Your task to perform on an android device: change the clock display to analog Image 0: 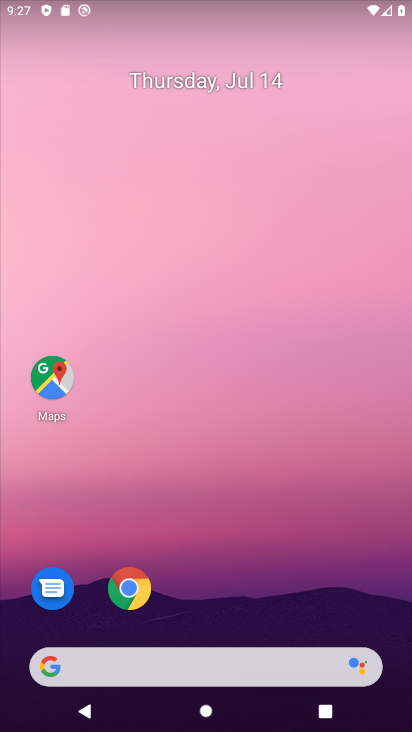
Step 0: drag from (207, 623) to (299, 4)
Your task to perform on an android device: change the clock display to analog Image 1: 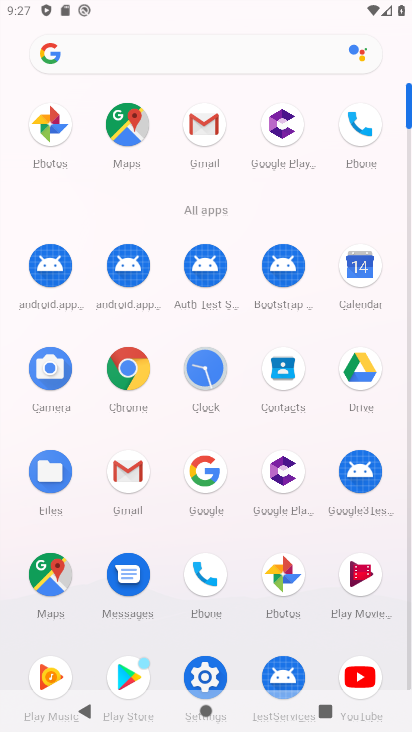
Step 1: click (204, 387)
Your task to perform on an android device: change the clock display to analog Image 2: 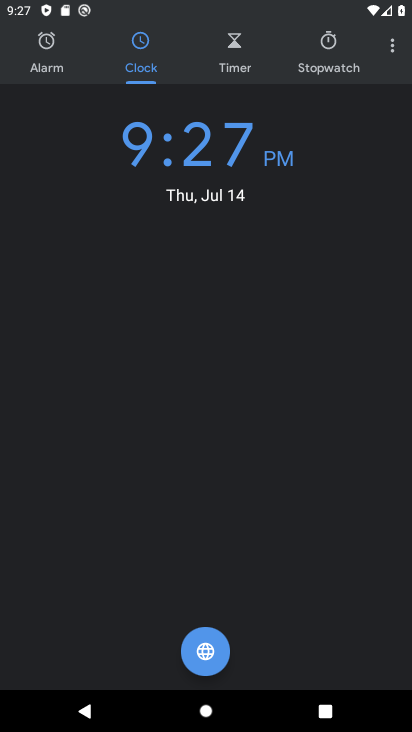
Step 2: click (380, 52)
Your task to perform on an android device: change the clock display to analog Image 3: 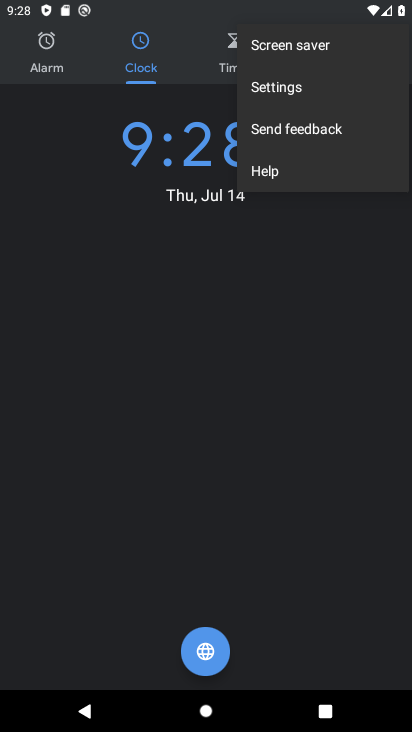
Step 3: click (283, 85)
Your task to perform on an android device: change the clock display to analog Image 4: 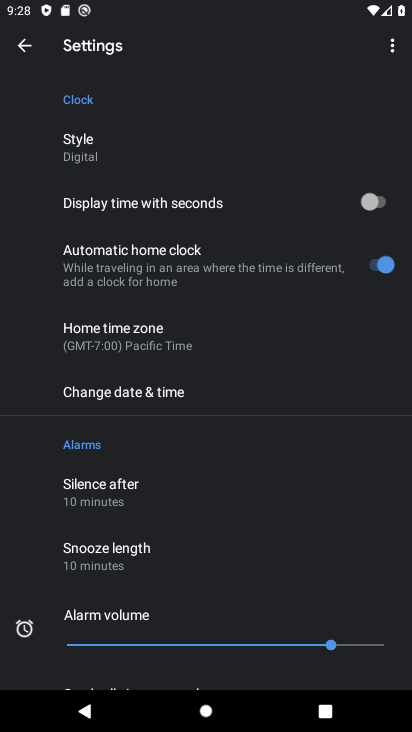
Step 4: click (94, 138)
Your task to perform on an android device: change the clock display to analog Image 5: 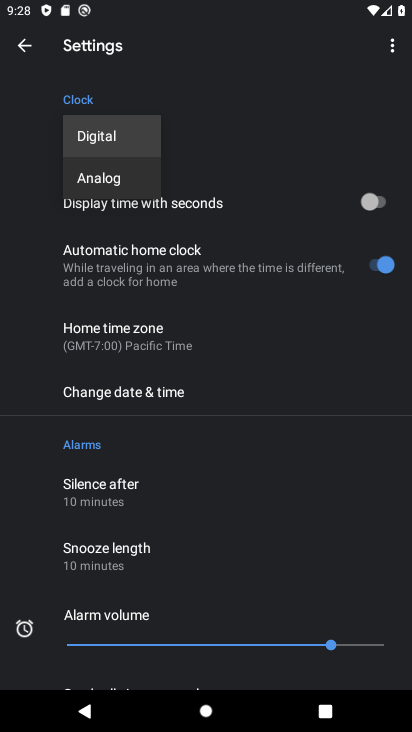
Step 5: click (120, 182)
Your task to perform on an android device: change the clock display to analog Image 6: 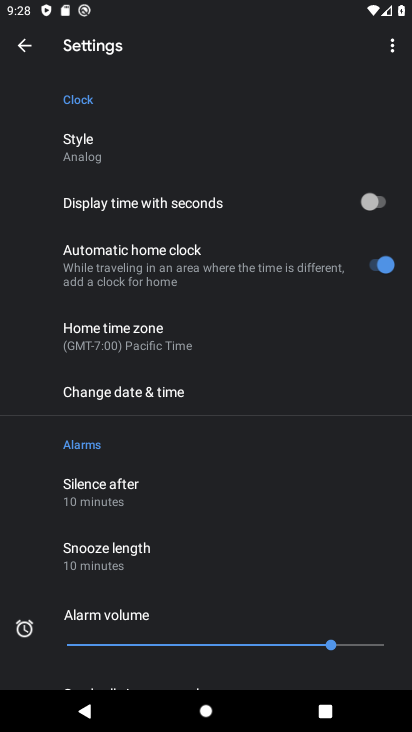
Step 6: task complete